Your task to perform on an android device: Is it going to rain tomorrow? Image 0: 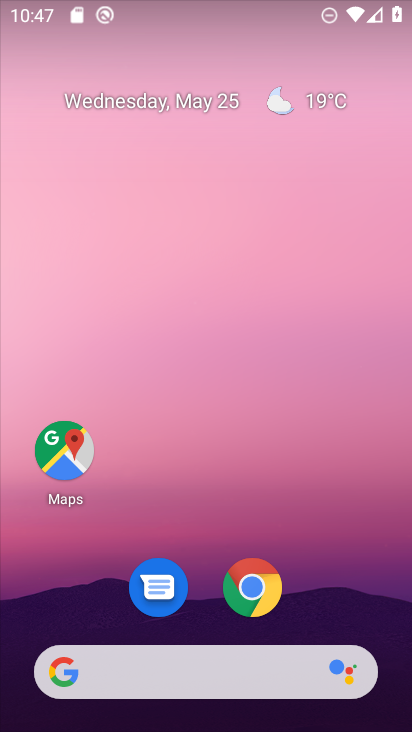
Step 0: click (309, 102)
Your task to perform on an android device: Is it going to rain tomorrow? Image 1: 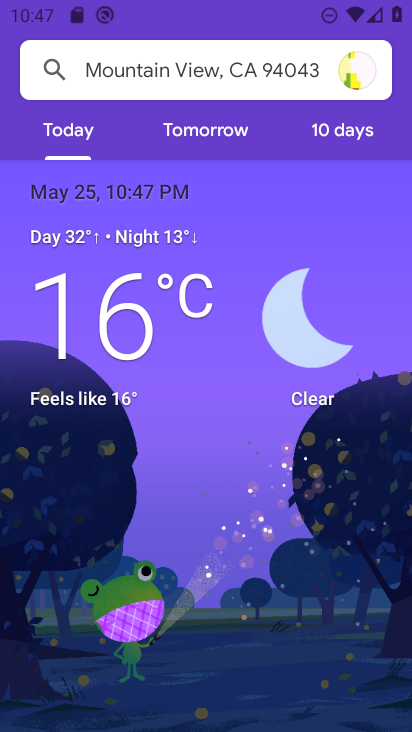
Step 1: click (203, 123)
Your task to perform on an android device: Is it going to rain tomorrow? Image 2: 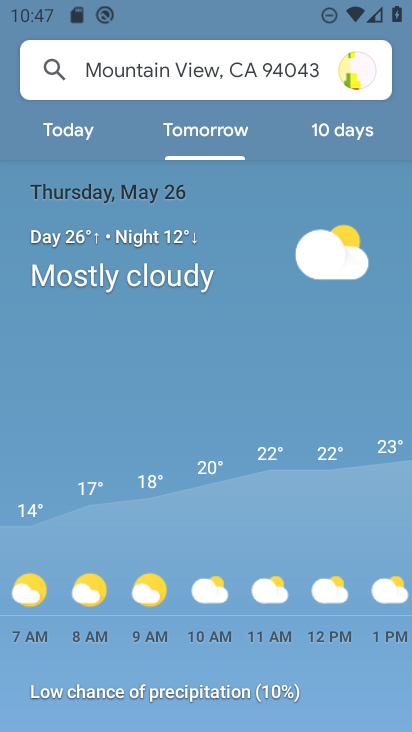
Step 2: task complete